Your task to perform on an android device: turn off sleep mode Image 0: 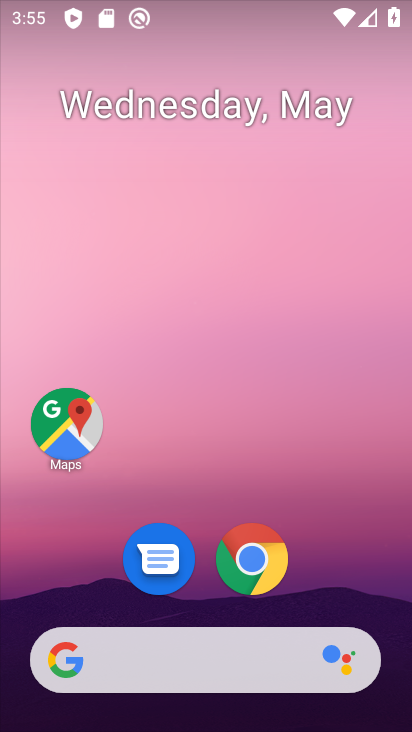
Step 0: drag from (310, 237) to (246, 37)
Your task to perform on an android device: turn off sleep mode Image 1: 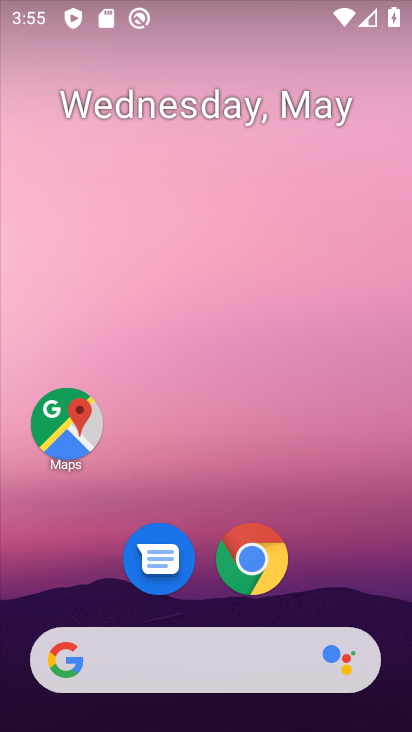
Step 1: drag from (340, 519) to (233, 23)
Your task to perform on an android device: turn off sleep mode Image 2: 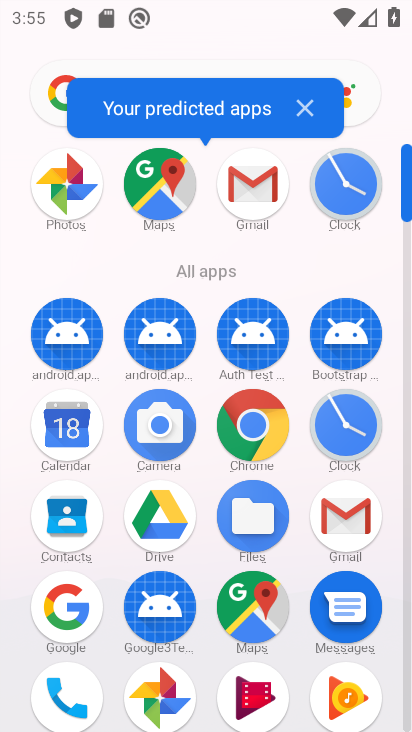
Step 2: drag from (211, 557) to (233, 116)
Your task to perform on an android device: turn off sleep mode Image 3: 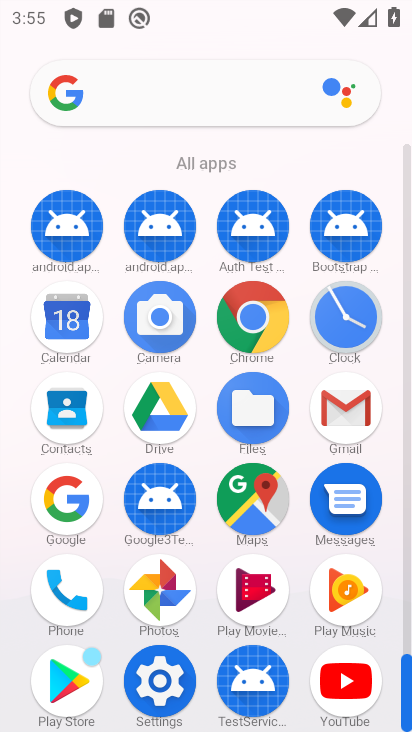
Step 3: click (164, 692)
Your task to perform on an android device: turn off sleep mode Image 4: 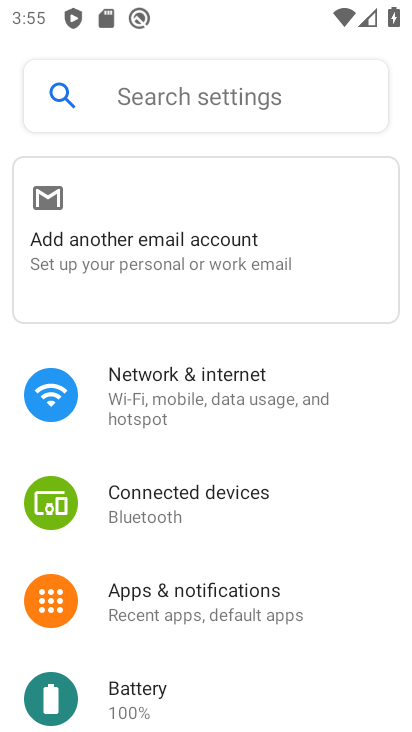
Step 4: drag from (239, 518) to (231, 147)
Your task to perform on an android device: turn off sleep mode Image 5: 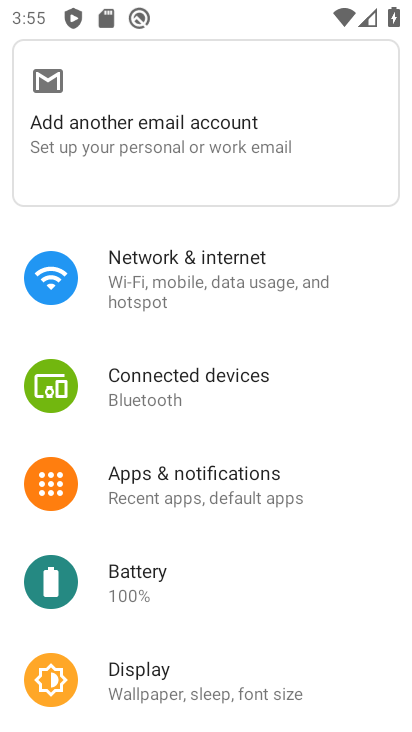
Step 5: click (233, 671)
Your task to perform on an android device: turn off sleep mode Image 6: 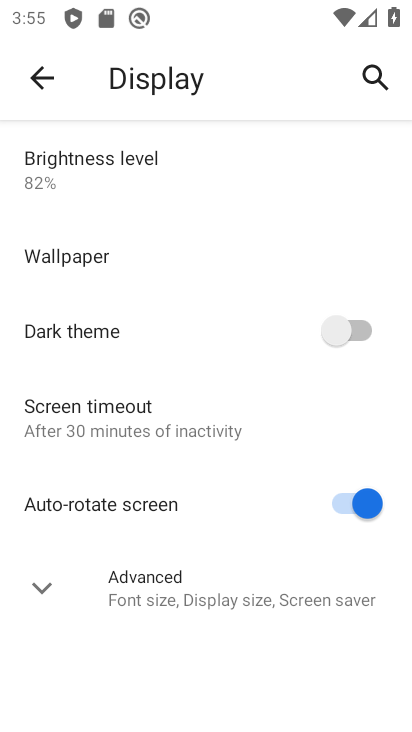
Step 6: task complete